Your task to perform on an android device: Turn on the flashlight Image 0: 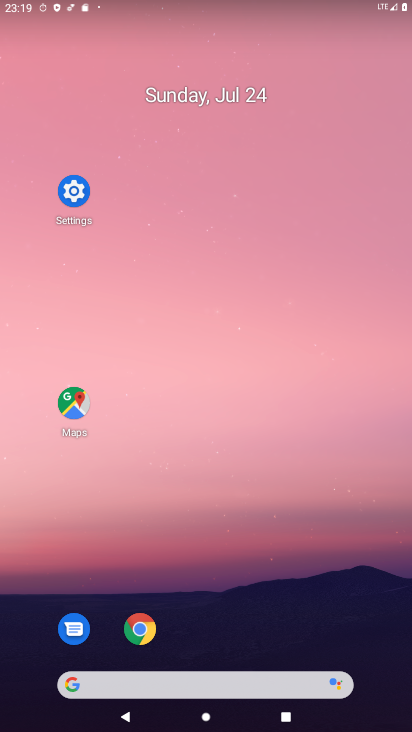
Step 0: drag from (237, 690) to (223, 15)
Your task to perform on an android device: Turn on the flashlight Image 1: 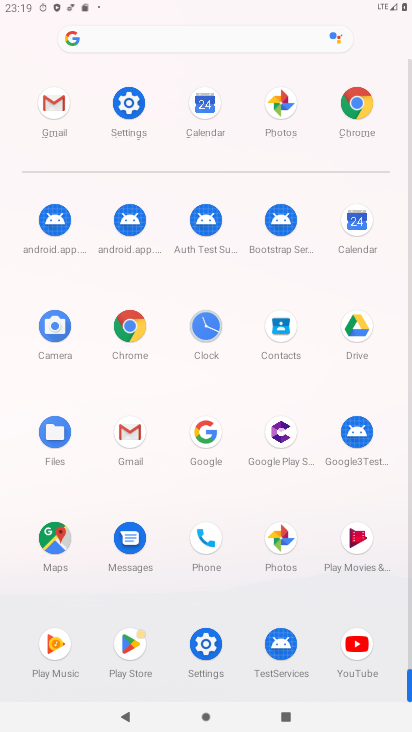
Step 1: task complete